Your task to perform on an android device: change notification settings in the gmail app Image 0: 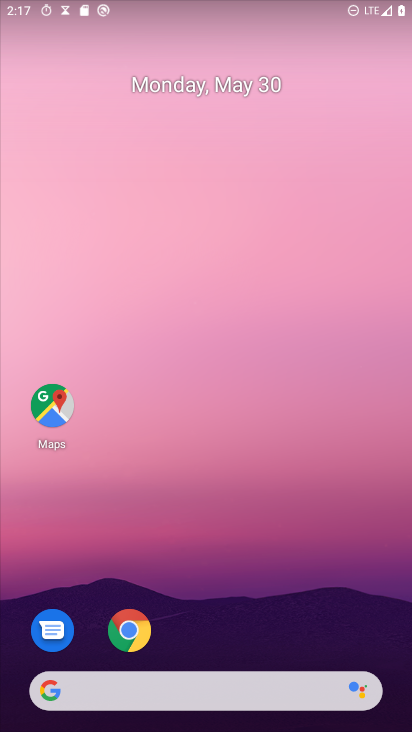
Step 0: drag from (275, 644) to (79, 0)
Your task to perform on an android device: change notification settings in the gmail app Image 1: 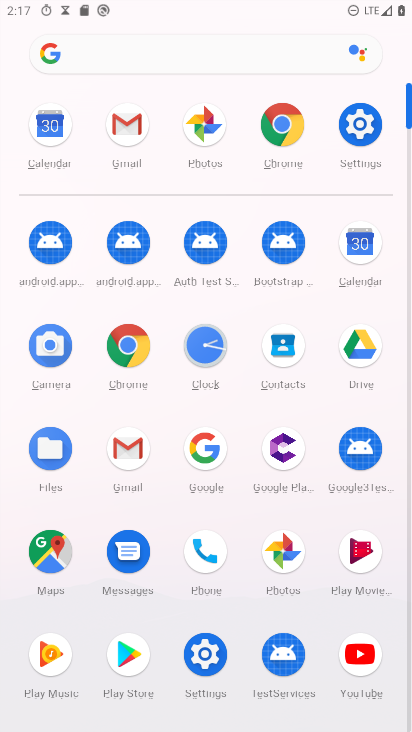
Step 1: click (134, 441)
Your task to perform on an android device: change notification settings in the gmail app Image 2: 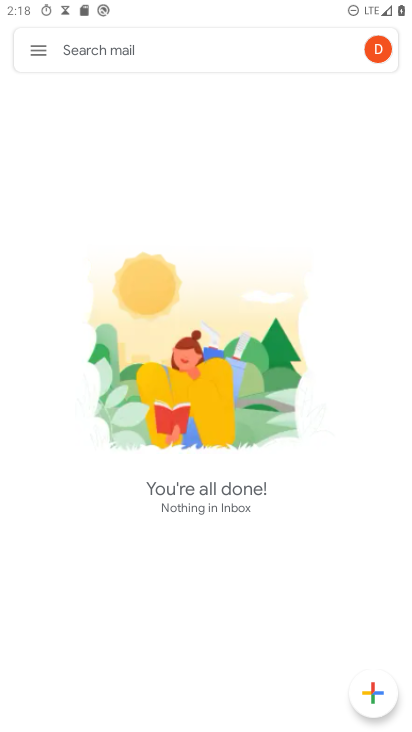
Step 2: click (42, 38)
Your task to perform on an android device: change notification settings in the gmail app Image 3: 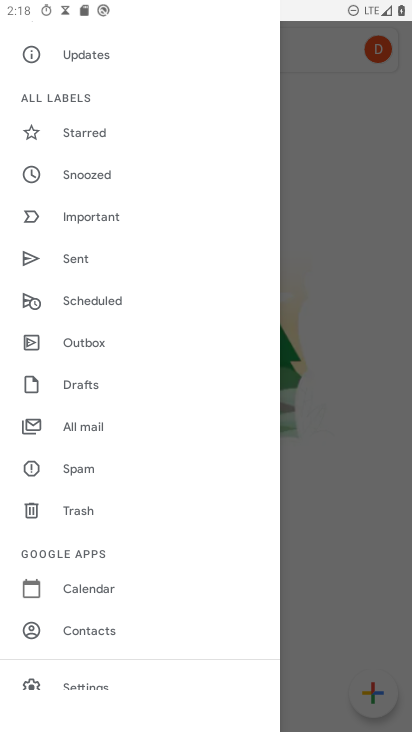
Step 3: drag from (98, 622) to (184, 343)
Your task to perform on an android device: change notification settings in the gmail app Image 4: 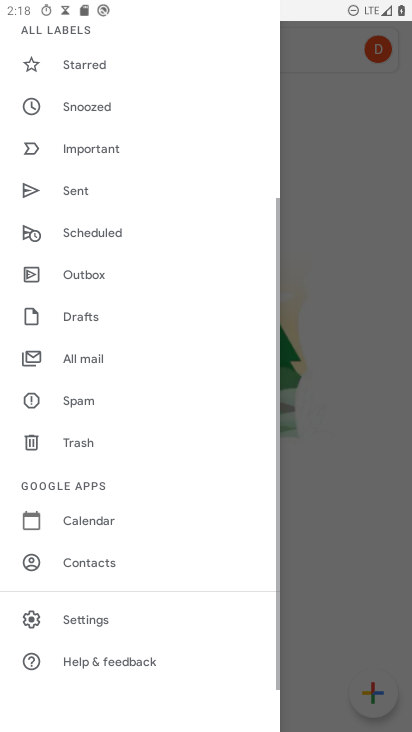
Step 4: click (109, 611)
Your task to perform on an android device: change notification settings in the gmail app Image 5: 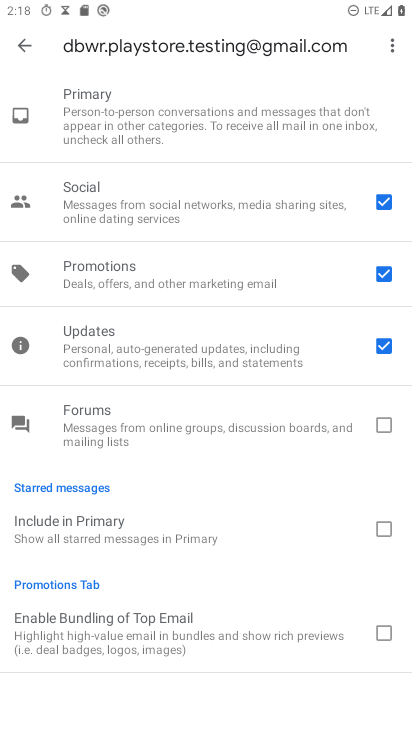
Step 5: drag from (147, 242) to (183, 543)
Your task to perform on an android device: change notification settings in the gmail app Image 6: 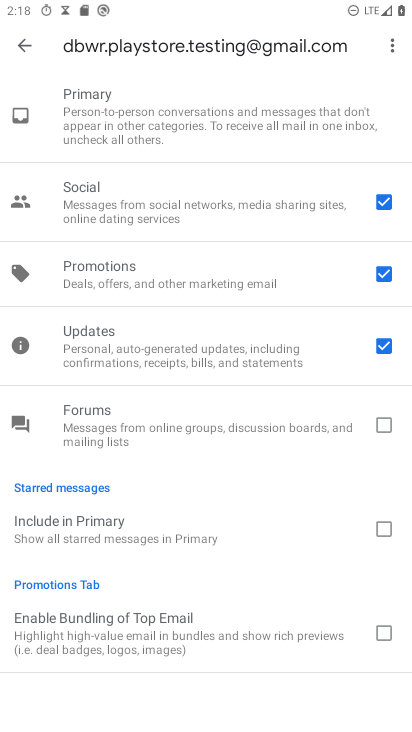
Step 6: click (19, 38)
Your task to perform on an android device: change notification settings in the gmail app Image 7: 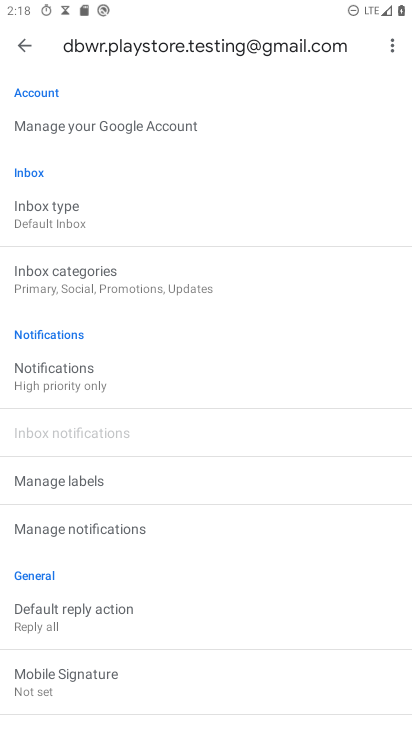
Step 7: click (97, 369)
Your task to perform on an android device: change notification settings in the gmail app Image 8: 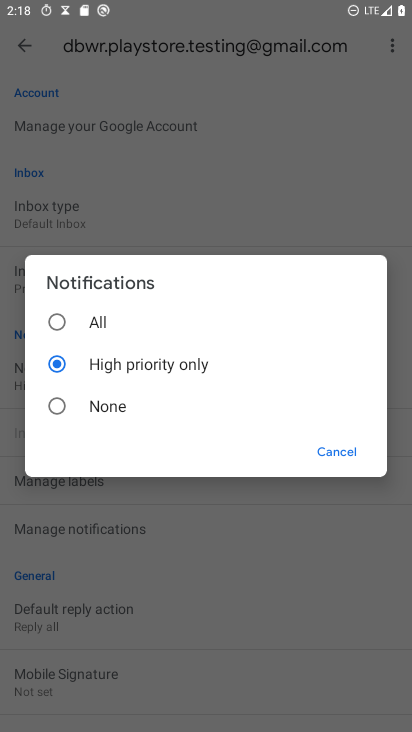
Step 8: click (135, 323)
Your task to perform on an android device: change notification settings in the gmail app Image 9: 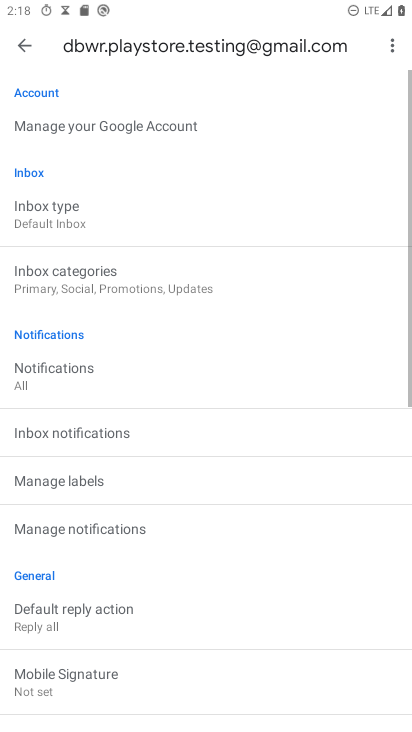
Step 9: task complete